Your task to perform on an android device: open sync settings in chrome Image 0: 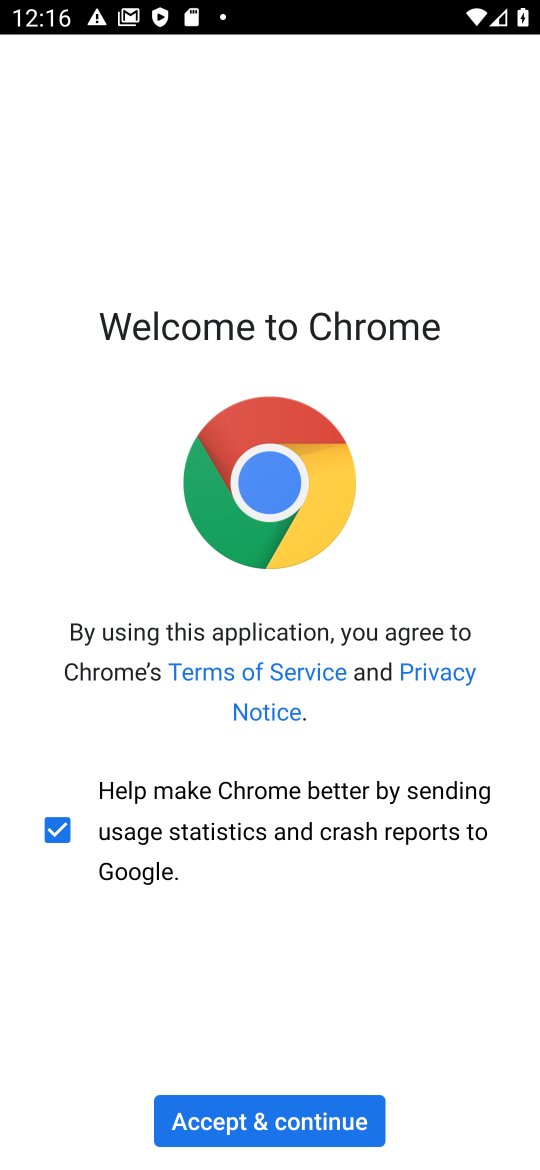
Step 0: click (289, 1120)
Your task to perform on an android device: open sync settings in chrome Image 1: 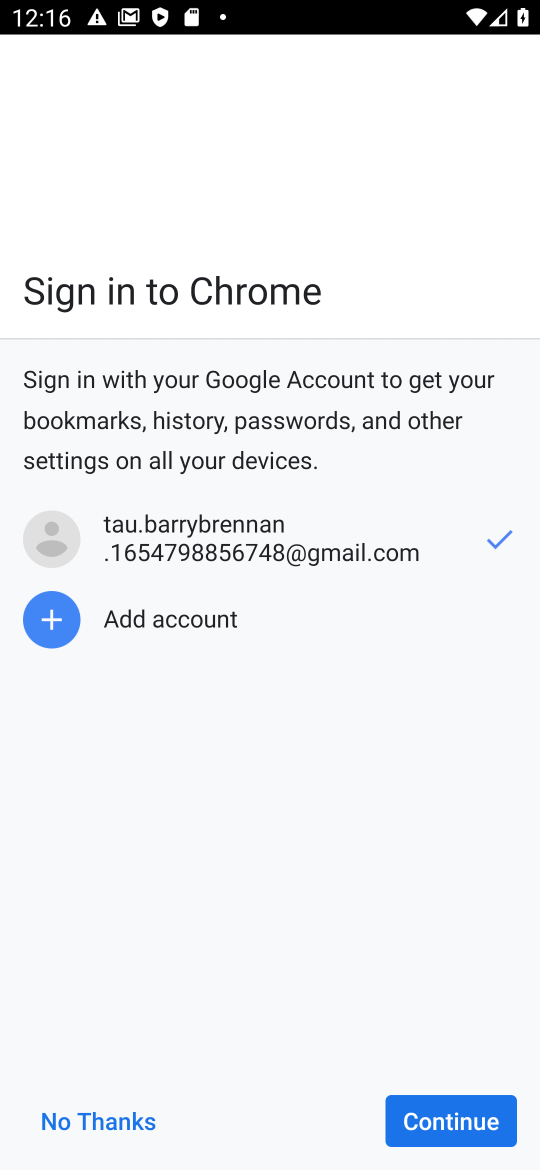
Step 1: click (449, 1106)
Your task to perform on an android device: open sync settings in chrome Image 2: 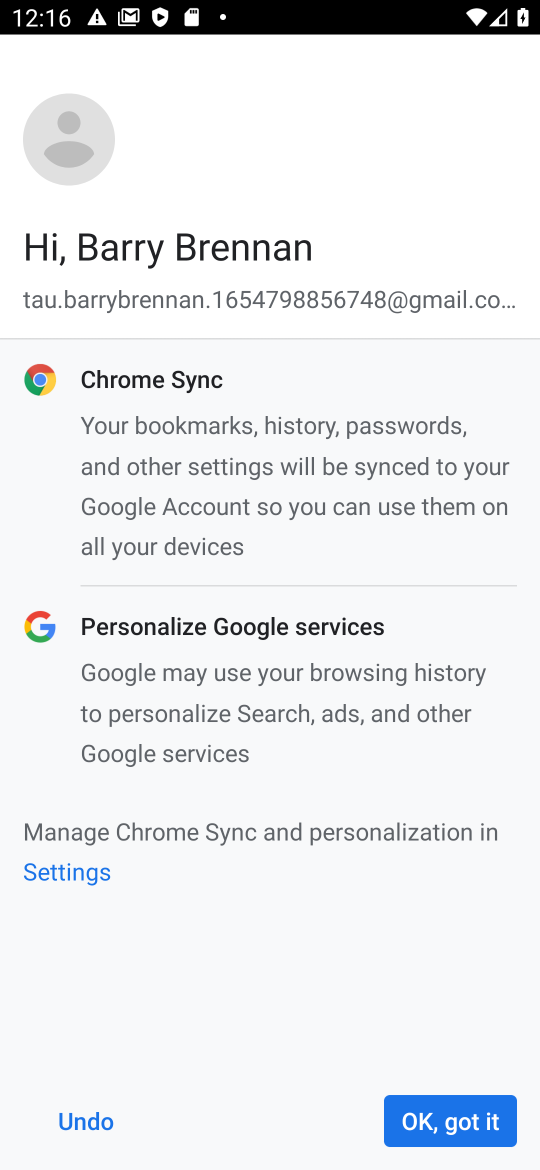
Step 2: click (447, 1123)
Your task to perform on an android device: open sync settings in chrome Image 3: 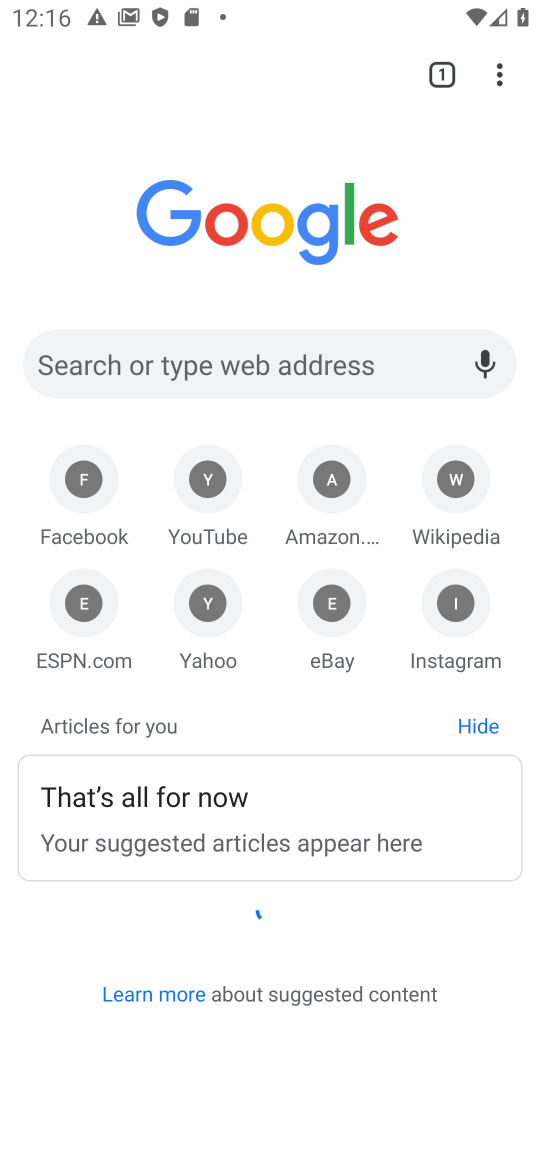
Step 3: drag from (500, 73) to (339, 644)
Your task to perform on an android device: open sync settings in chrome Image 4: 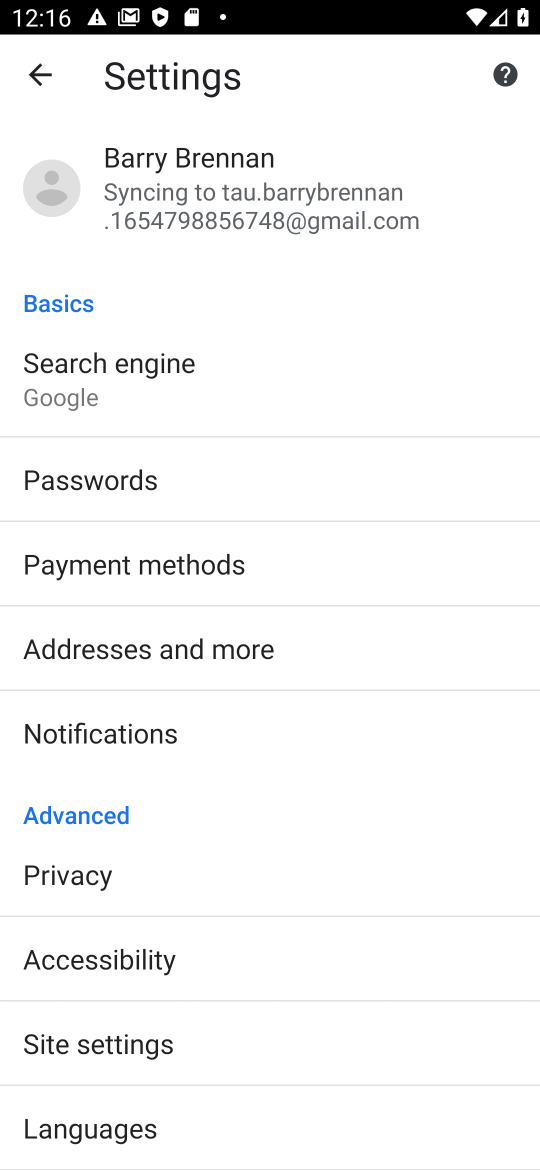
Step 4: click (411, 154)
Your task to perform on an android device: open sync settings in chrome Image 5: 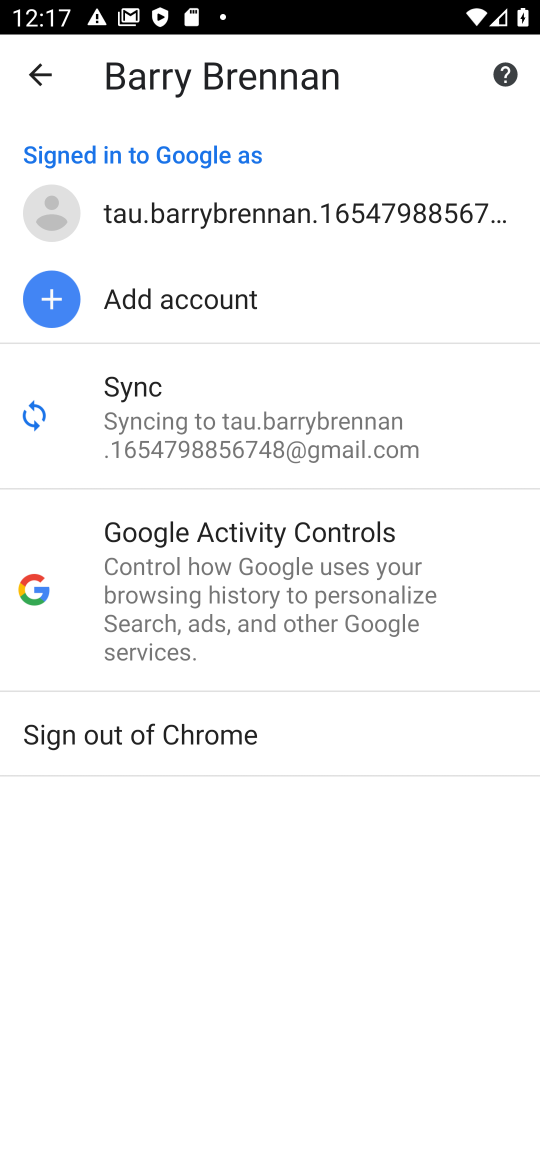
Step 5: click (239, 390)
Your task to perform on an android device: open sync settings in chrome Image 6: 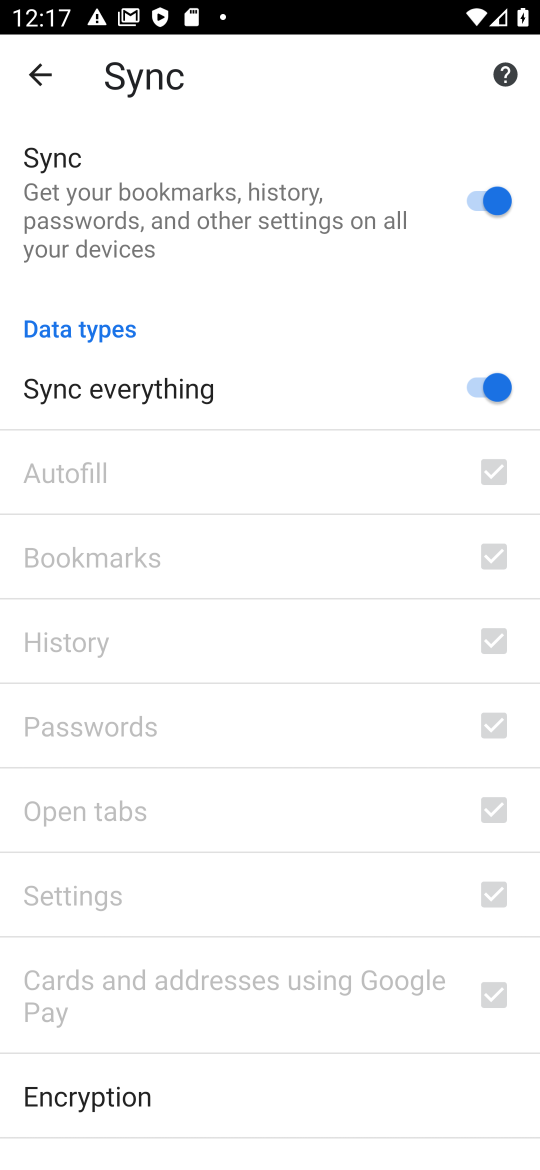
Step 6: task complete